Your task to perform on an android device: Search for "lg ultragear" on newegg.com, select the first entry, and add it to the cart. Image 0: 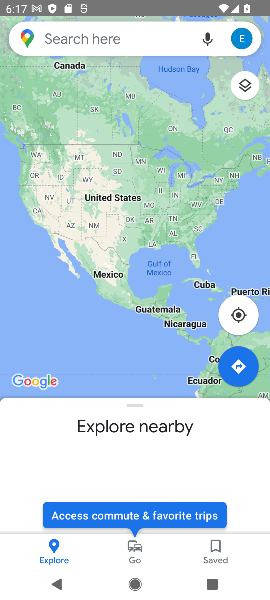
Step 0: press home button
Your task to perform on an android device: Search for "lg ultragear" on newegg.com, select the first entry, and add it to the cart. Image 1: 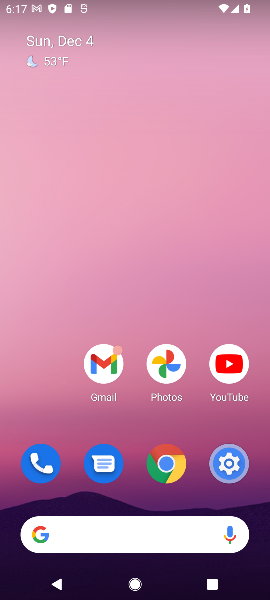
Step 1: click (168, 460)
Your task to perform on an android device: Search for "lg ultragear" on newegg.com, select the first entry, and add it to the cart. Image 2: 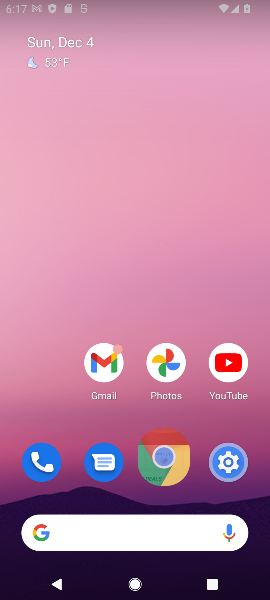
Step 2: task complete